Your task to perform on an android device: Open Youtube and go to the subscriptions tab Image 0: 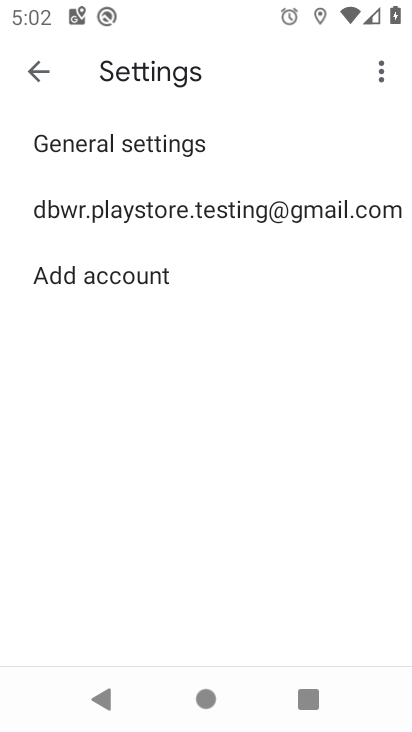
Step 0: press home button
Your task to perform on an android device: Open Youtube and go to the subscriptions tab Image 1: 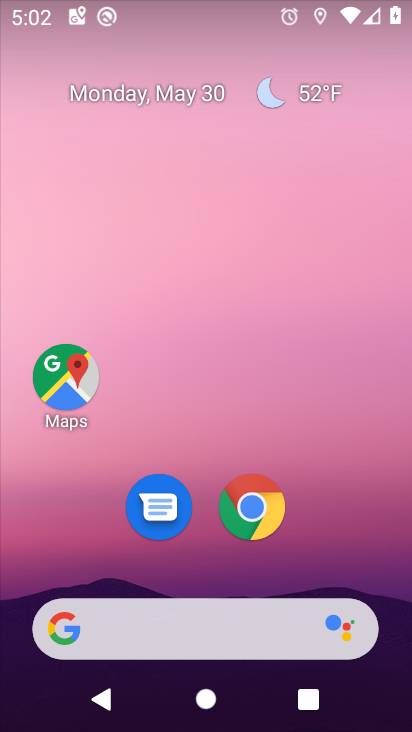
Step 1: drag from (357, 563) to (340, 5)
Your task to perform on an android device: Open Youtube and go to the subscriptions tab Image 2: 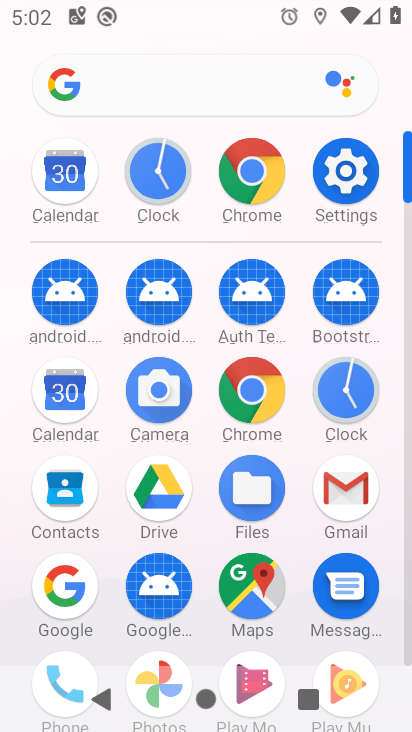
Step 2: click (406, 670)
Your task to perform on an android device: Open Youtube and go to the subscriptions tab Image 3: 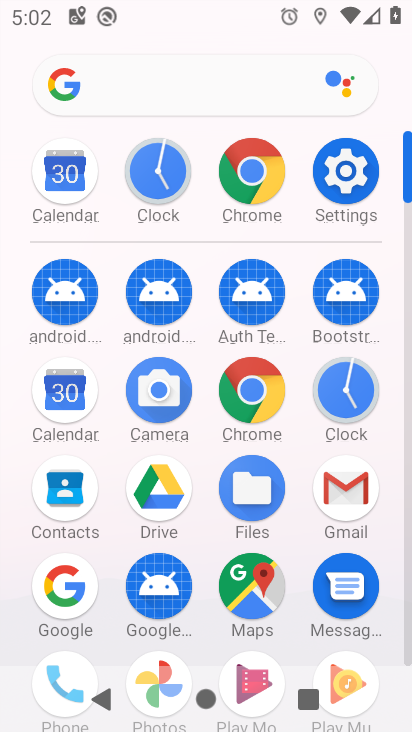
Step 3: click (406, 647)
Your task to perform on an android device: Open Youtube and go to the subscriptions tab Image 4: 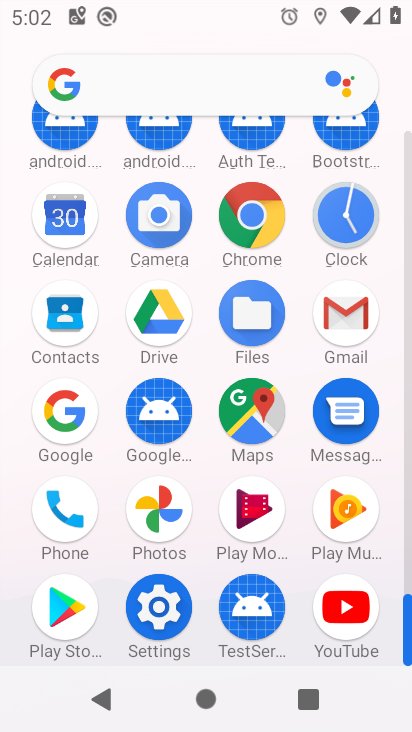
Step 4: click (363, 628)
Your task to perform on an android device: Open Youtube and go to the subscriptions tab Image 5: 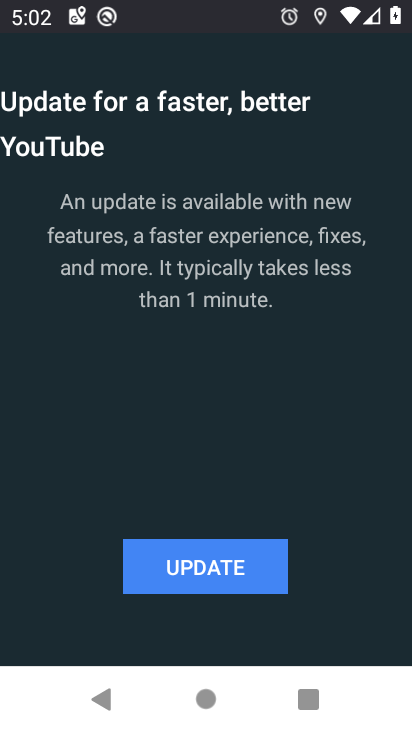
Step 5: click (241, 565)
Your task to perform on an android device: Open Youtube and go to the subscriptions tab Image 6: 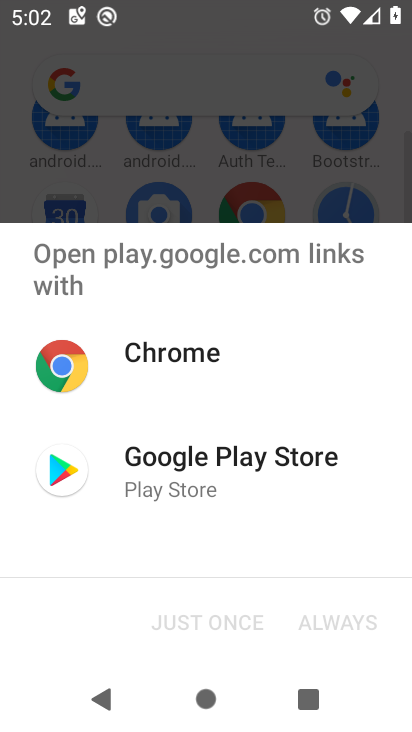
Step 6: click (170, 476)
Your task to perform on an android device: Open Youtube and go to the subscriptions tab Image 7: 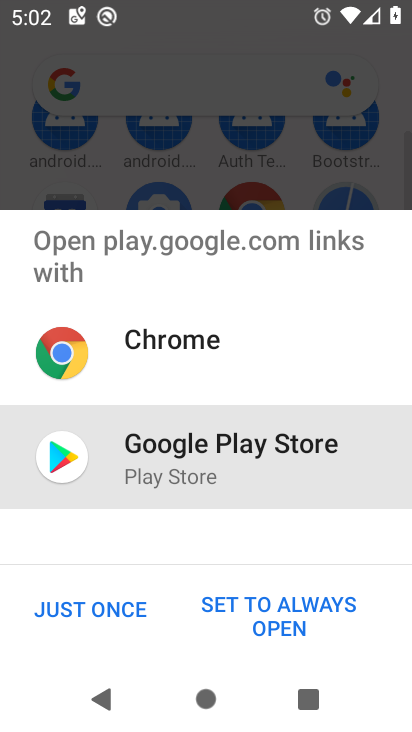
Step 7: click (102, 627)
Your task to perform on an android device: Open Youtube and go to the subscriptions tab Image 8: 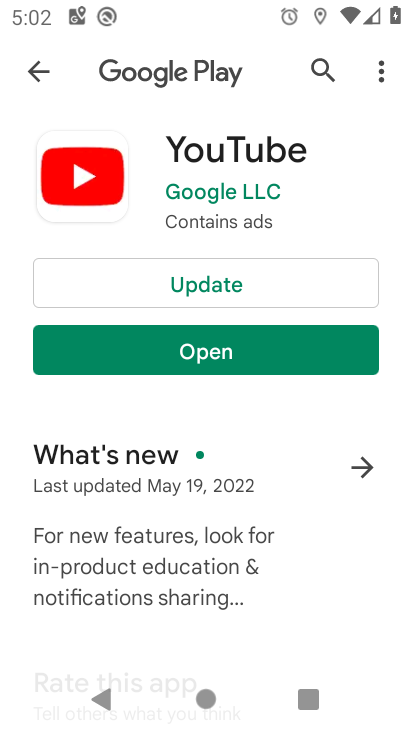
Step 8: click (263, 277)
Your task to perform on an android device: Open Youtube and go to the subscriptions tab Image 9: 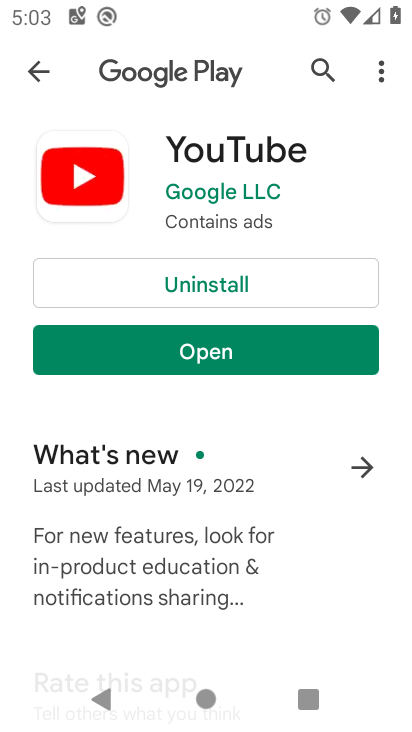
Step 9: click (270, 354)
Your task to perform on an android device: Open Youtube and go to the subscriptions tab Image 10: 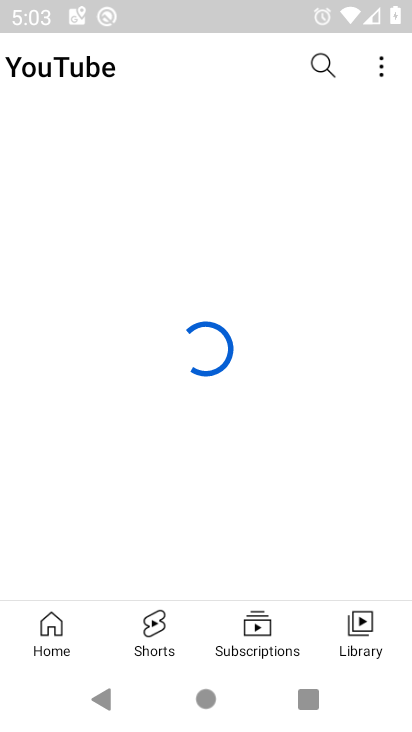
Step 10: click (253, 625)
Your task to perform on an android device: Open Youtube and go to the subscriptions tab Image 11: 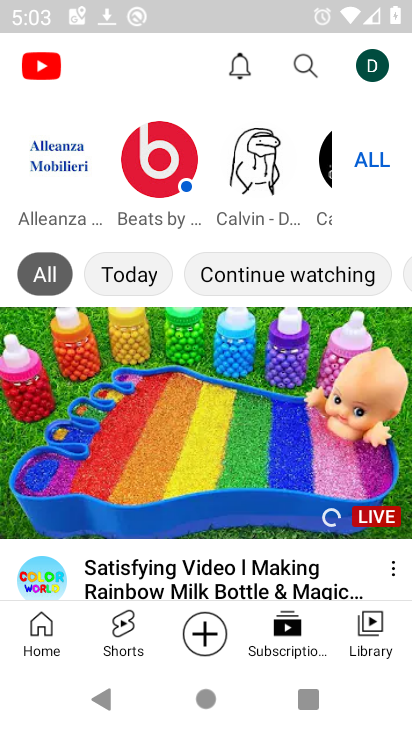
Step 11: task complete